Your task to perform on an android device: turn on showing notifications on the lock screen Image 0: 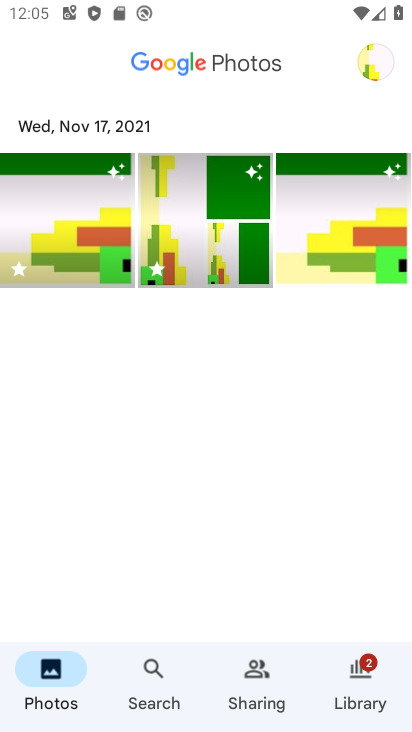
Step 0: press home button
Your task to perform on an android device: turn on showing notifications on the lock screen Image 1: 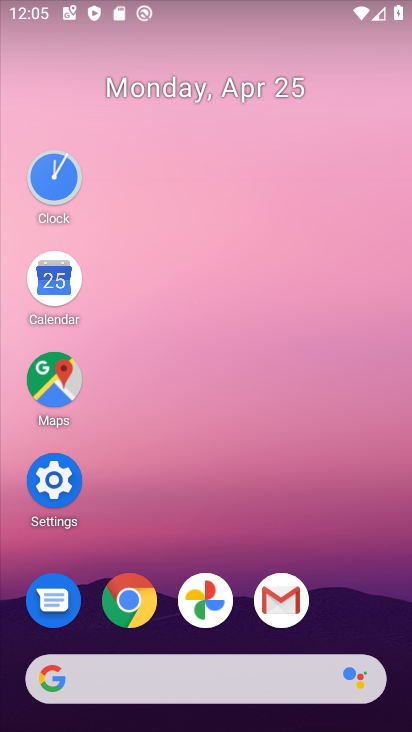
Step 1: click (52, 479)
Your task to perform on an android device: turn on showing notifications on the lock screen Image 2: 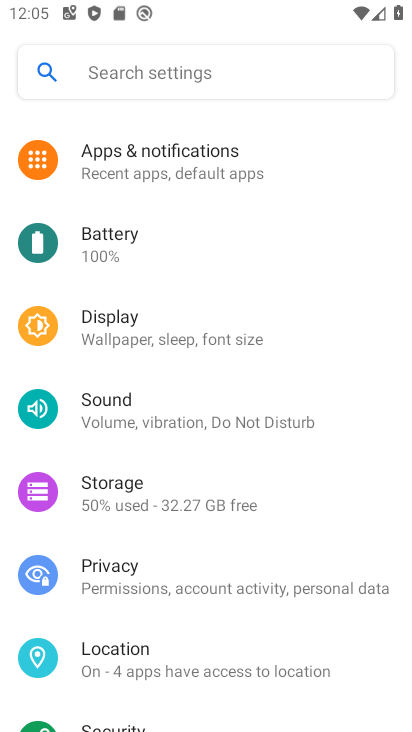
Step 2: click (148, 148)
Your task to perform on an android device: turn on showing notifications on the lock screen Image 3: 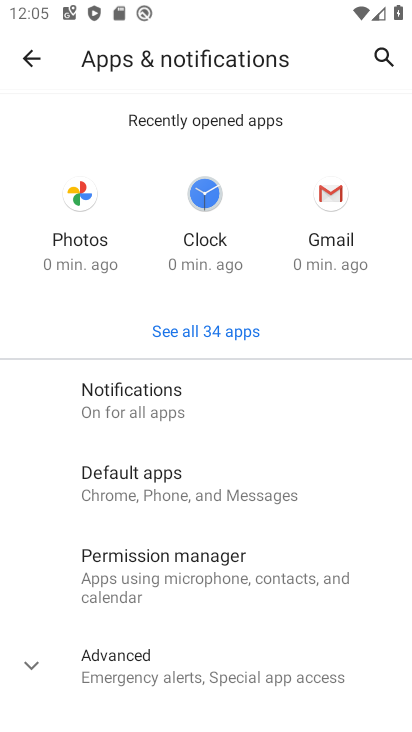
Step 3: drag from (176, 608) to (164, 375)
Your task to perform on an android device: turn on showing notifications on the lock screen Image 4: 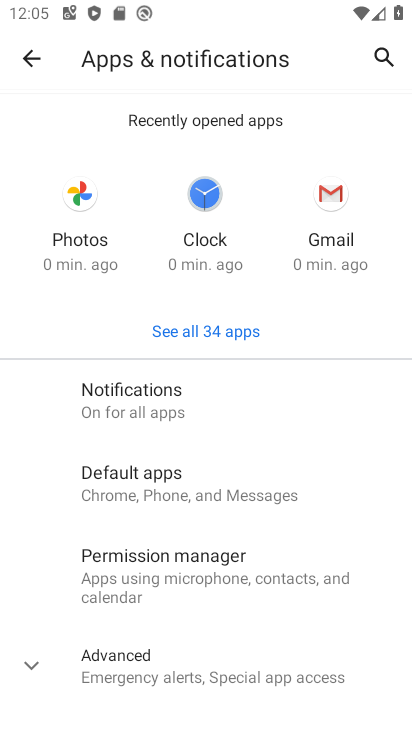
Step 4: click (94, 680)
Your task to perform on an android device: turn on showing notifications on the lock screen Image 5: 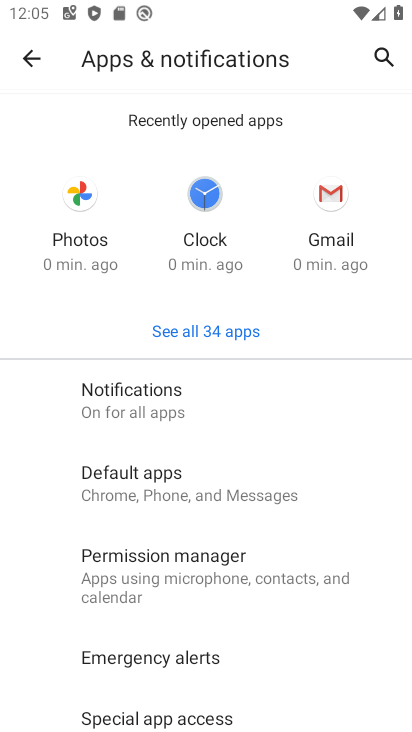
Step 5: click (141, 391)
Your task to perform on an android device: turn on showing notifications on the lock screen Image 6: 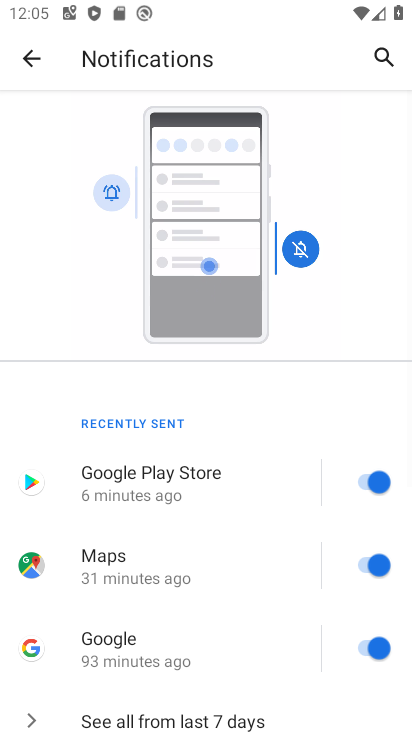
Step 6: drag from (177, 545) to (154, 104)
Your task to perform on an android device: turn on showing notifications on the lock screen Image 7: 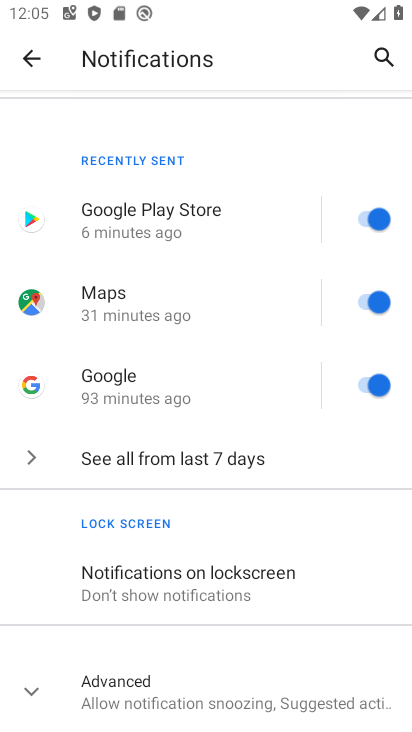
Step 7: click (175, 565)
Your task to perform on an android device: turn on showing notifications on the lock screen Image 8: 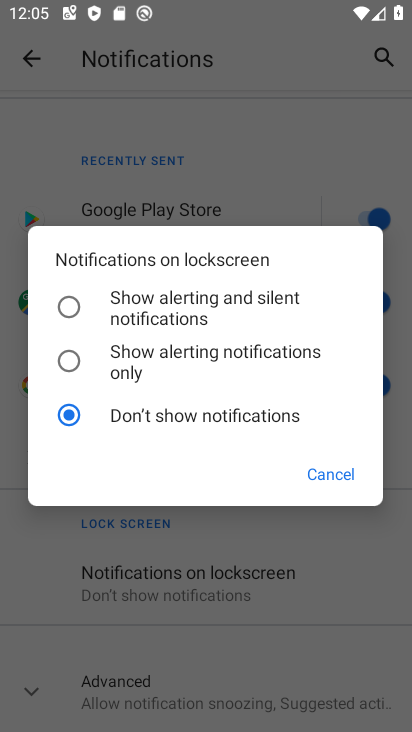
Step 8: click (69, 303)
Your task to perform on an android device: turn on showing notifications on the lock screen Image 9: 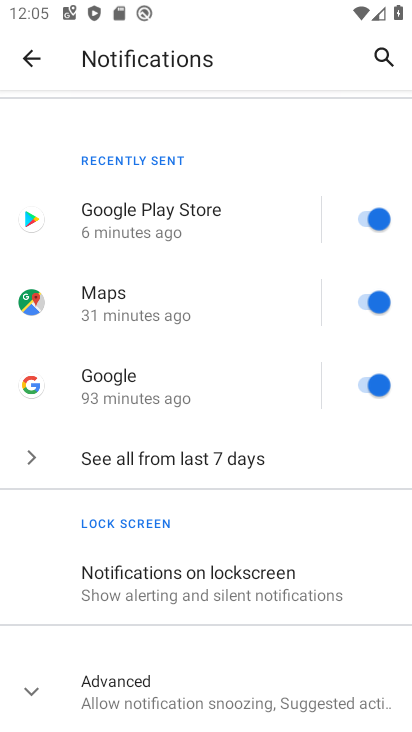
Step 9: task complete